Your task to perform on an android device: open app "Google Sheets" (install if not already installed) Image 0: 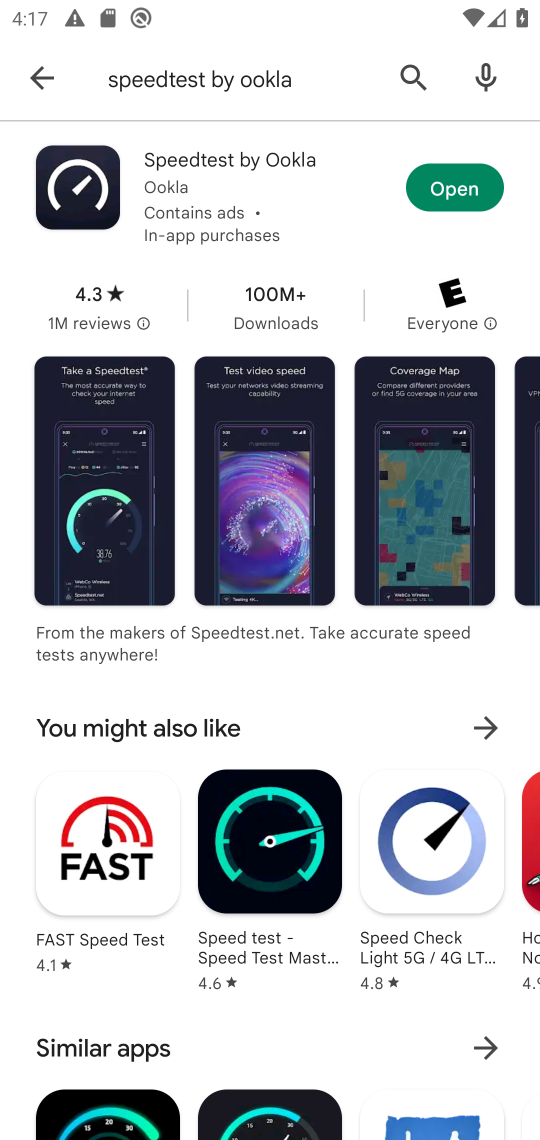
Step 0: drag from (218, 975) to (241, 432)
Your task to perform on an android device: open app "Google Sheets" (install if not already installed) Image 1: 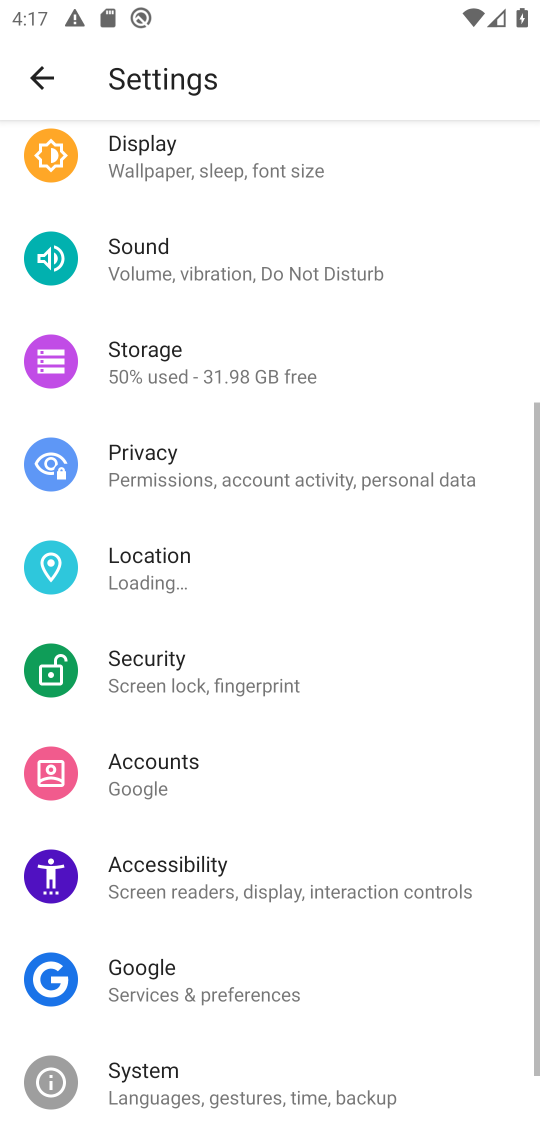
Step 1: press back button
Your task to perform on an android device: open app "Google Sheets" (install if not already installed) Image 2: 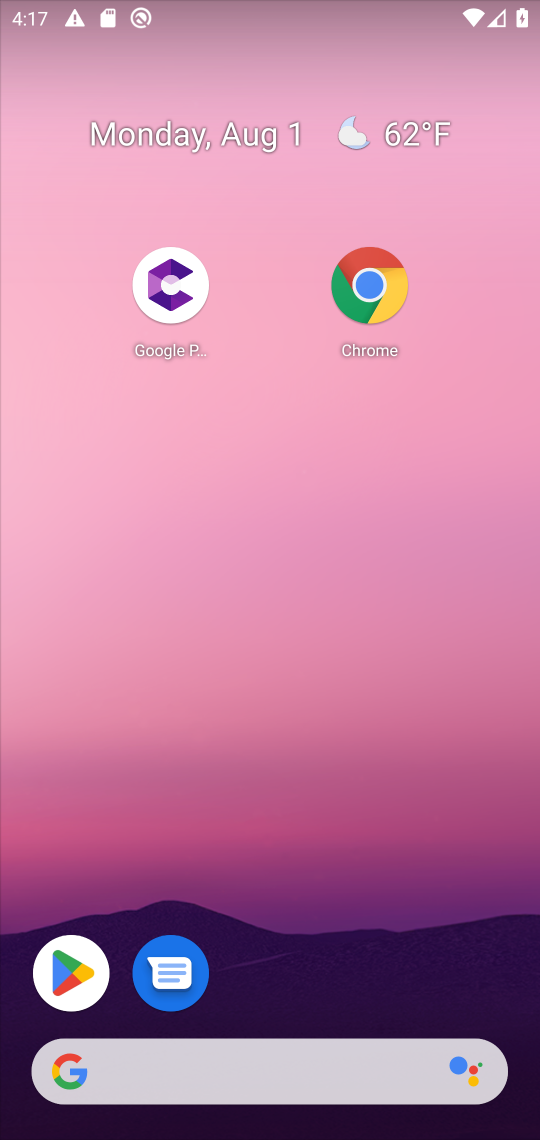
Step 2: drag from (279, 835) to (159, 138)
Your task to perform on an android device: open app "Google Sheets" (install if not already installed) Image 3: 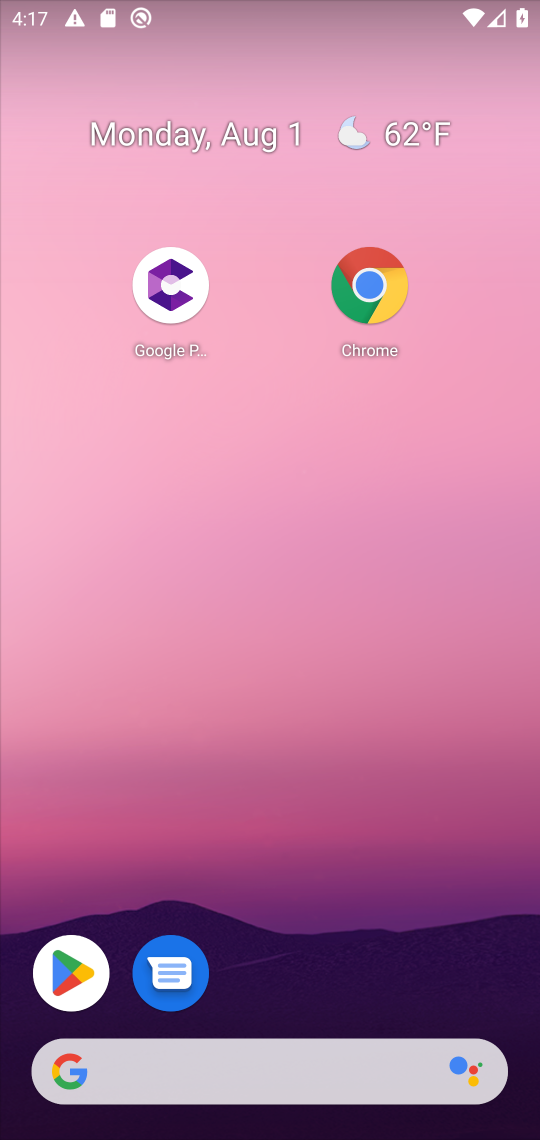
Step 3: drag from (383, 714) to (301, 235)
Your task to perform on an android device: open app "Google Sheets" (install if not already installed) Image 4: 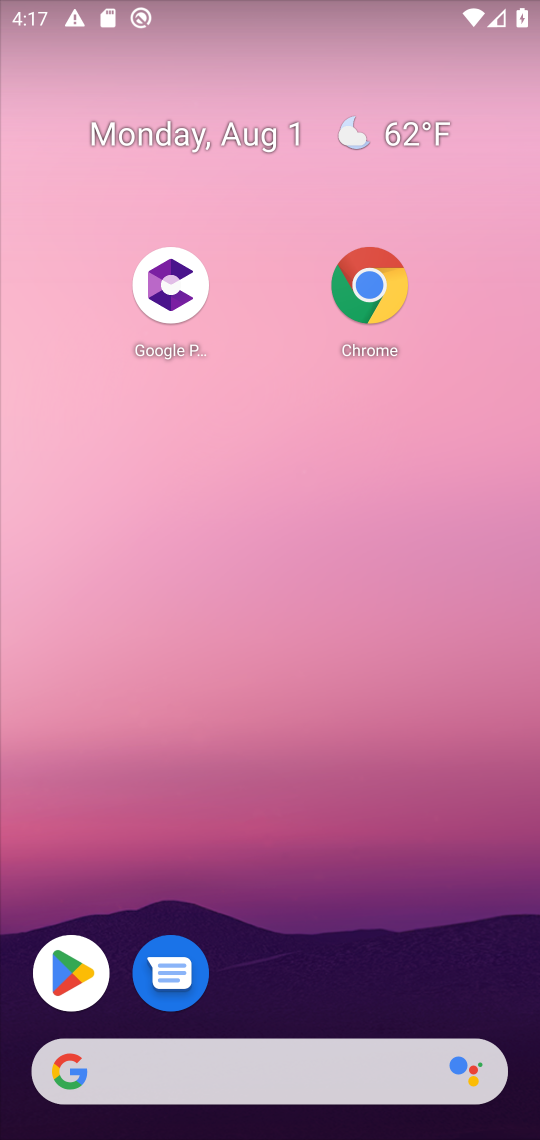
Step 4: click (460, 227)
Your task to perform on an android device: open app "Google Sheets" (install if not already installed) Image 5: 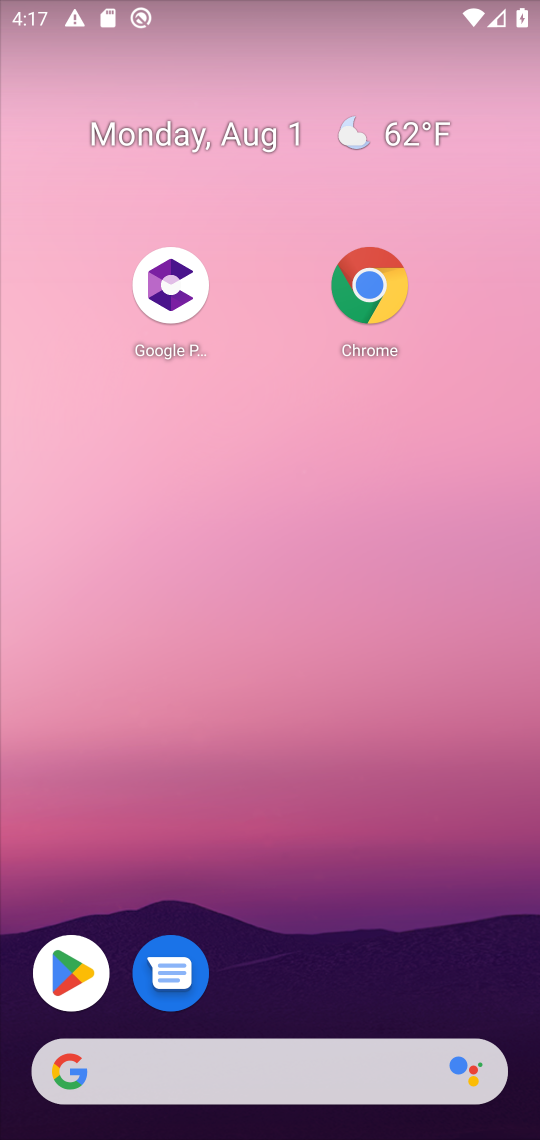
Step 5: drag from (377, 761) to (344, 193)
Your task to perform on an android device: open app "Google Sheets" (install if not already installed) Image 6: 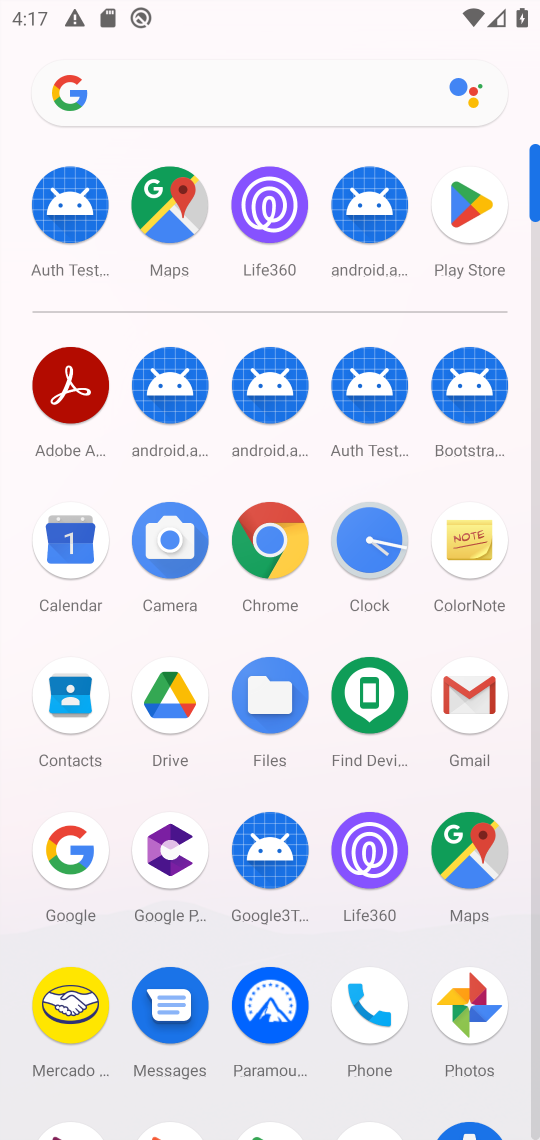
Step 6: click (467, 218)
Your task to perform on an android device: open app "Google Sheets" (install if not already installed) Image 7: 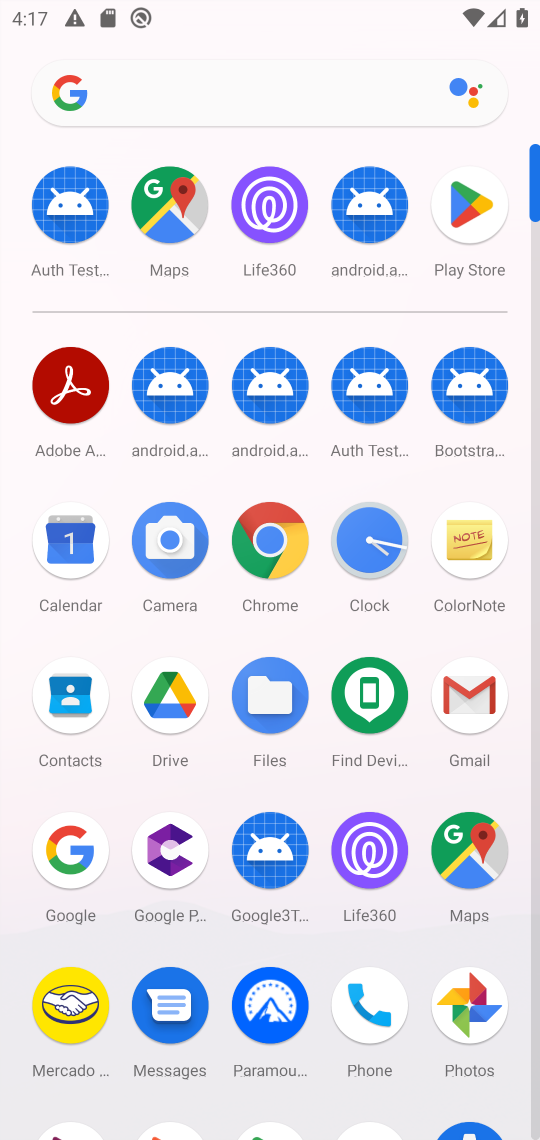
Step 7: click (468, 216)
Your task to perform on an android device: open app "Google Sheets" (install if not already installed) Image 8: 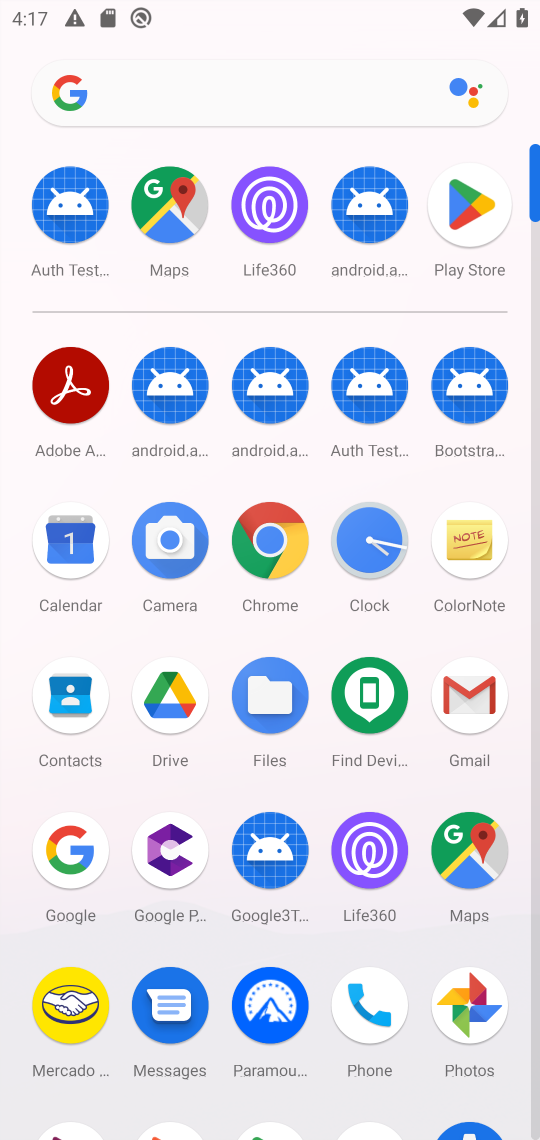
Step 8: click (468, 216)
Your task to perform on an android device: open app "Google Sheets" (install if not already installed) Image 9: 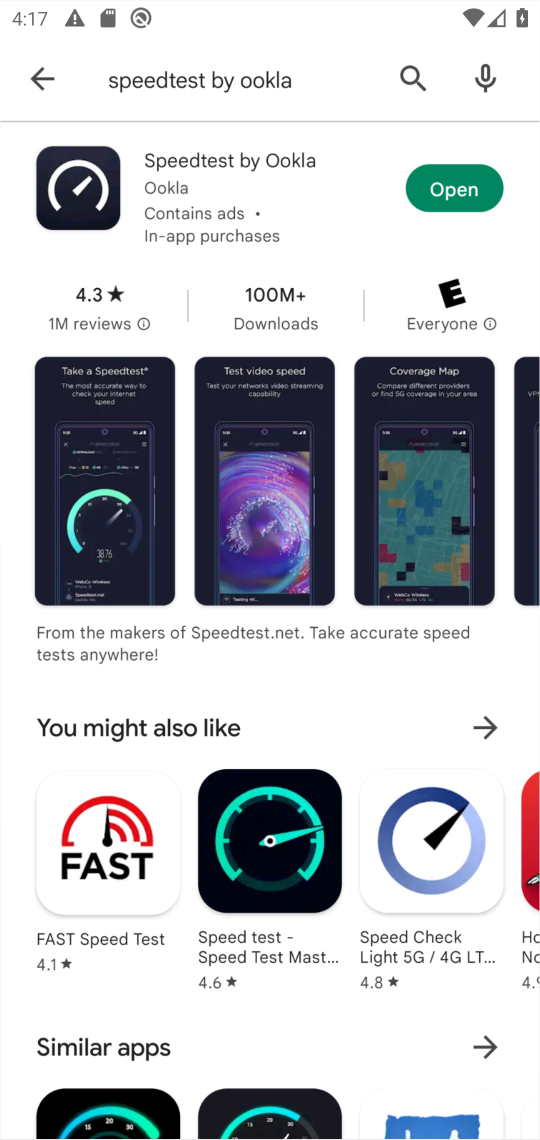
Step 9: click (469, 229)
Your task to perform on an android device: open app "Google Sheets" (install if not already installed) Image 10: 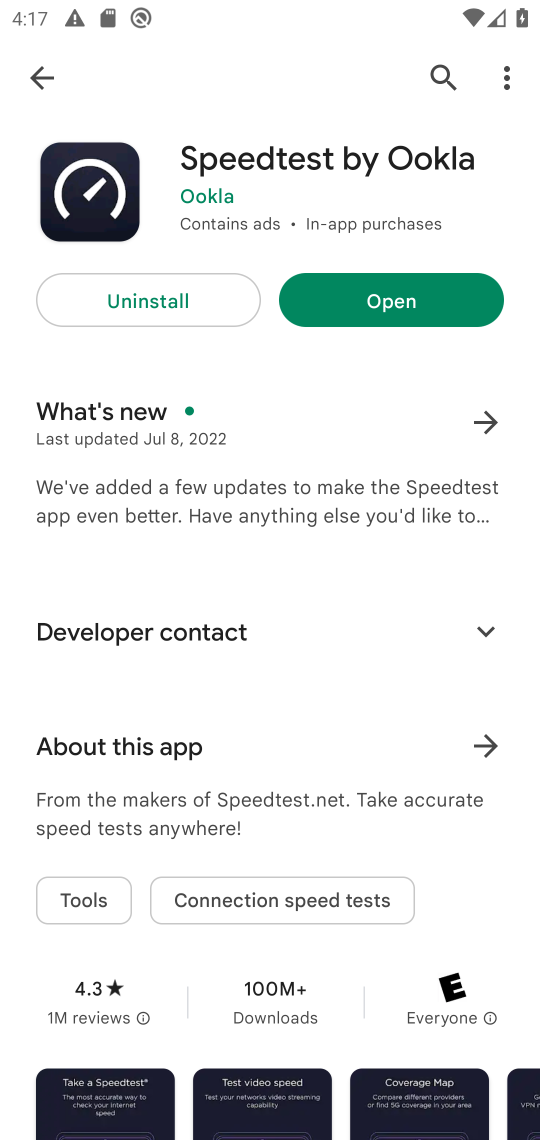
Step 10: click (39, 64)
Your task to perform on an android device: open app "Google Sheets" (install if not already installed) Image 11: 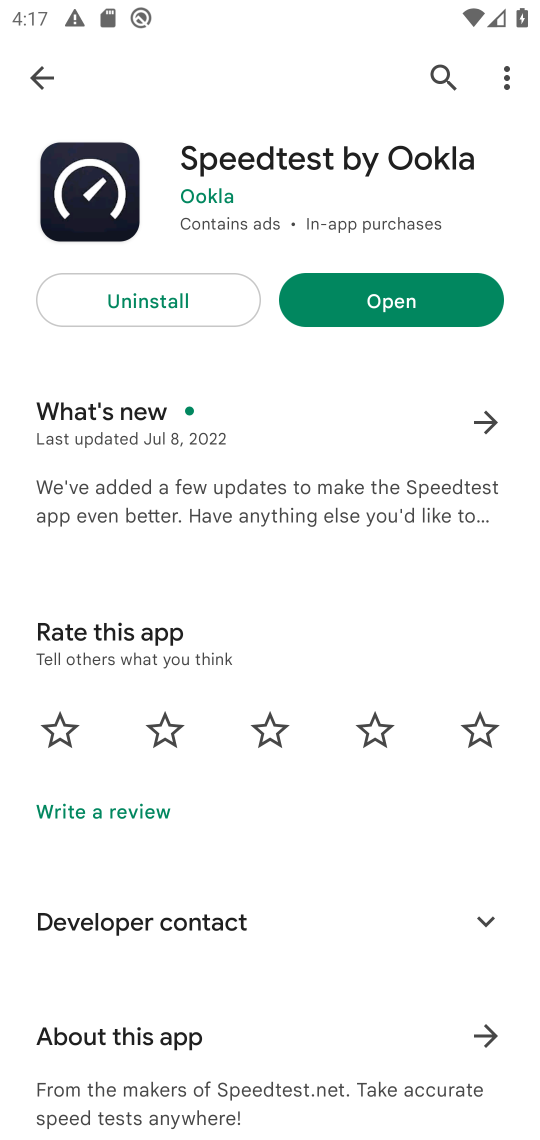
Step 11: click (37, 76)
Your task to perform on an android device: open app "Google Sheets" (install if not already installed) Image 12: 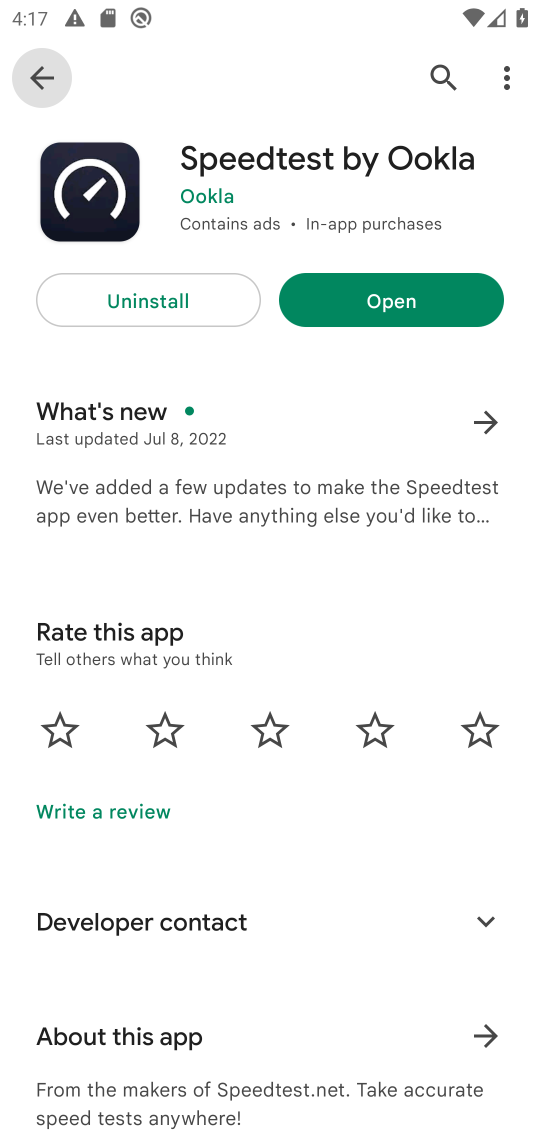
Step 12: click (38, 76)
Your task to perform on an android device: open app "Google Sheets" (install if not already installed) Image 13: 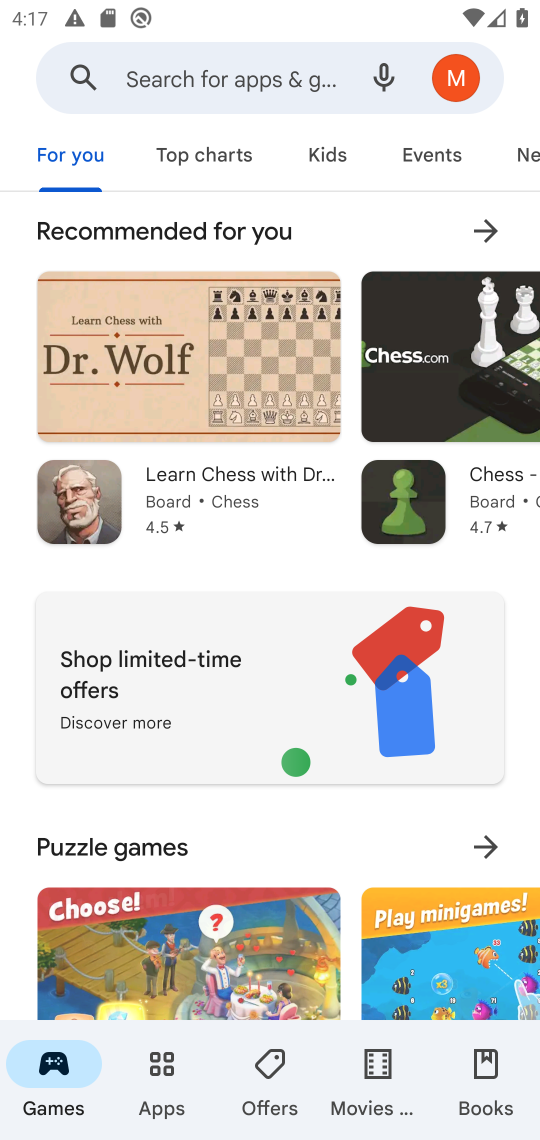
Step 13: click (171, 36)
Your task to perform on an android device: open app "Google Sheets" (install if not already installed) Image 14: 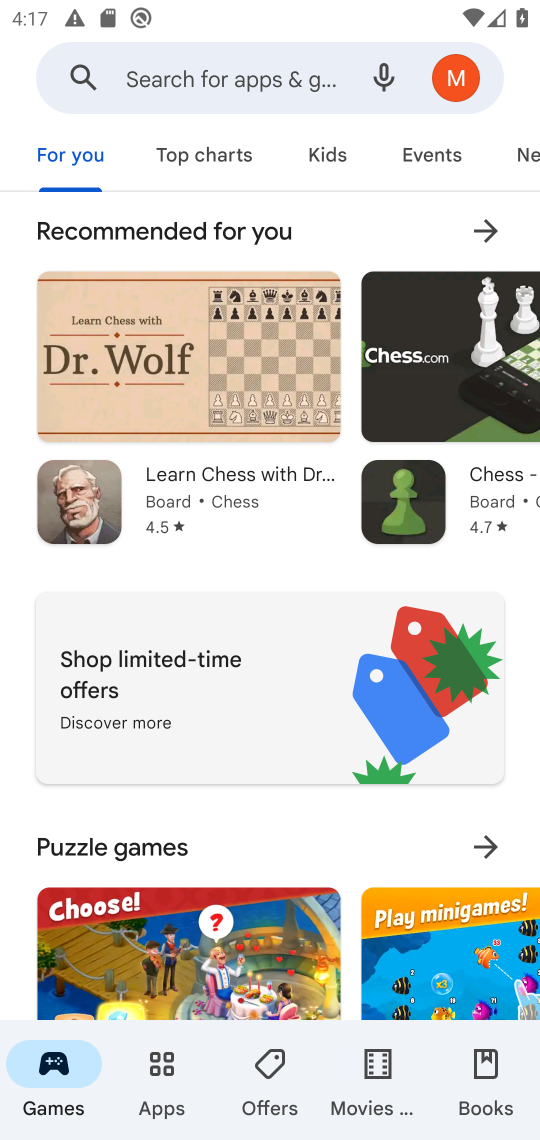
Step 14: click (170, 74)
Your task to perform on an android device: open app "Google Sheets" (install if not already installed) Image 15: 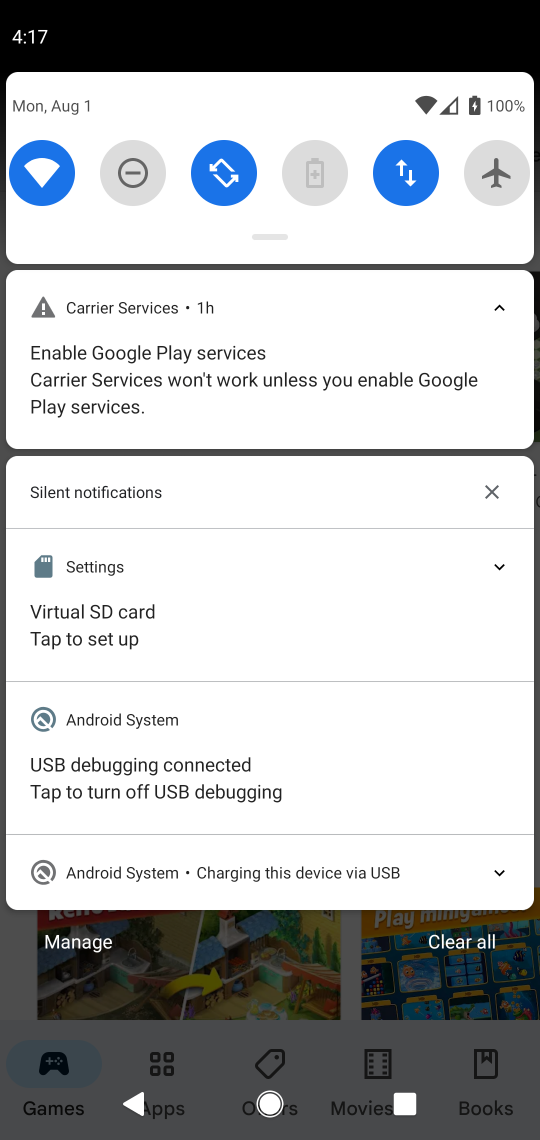
Step 15: click (186, 986)
Your task to perform on an android device: open app "Google Sheets" (install if not already installed) Image 16: 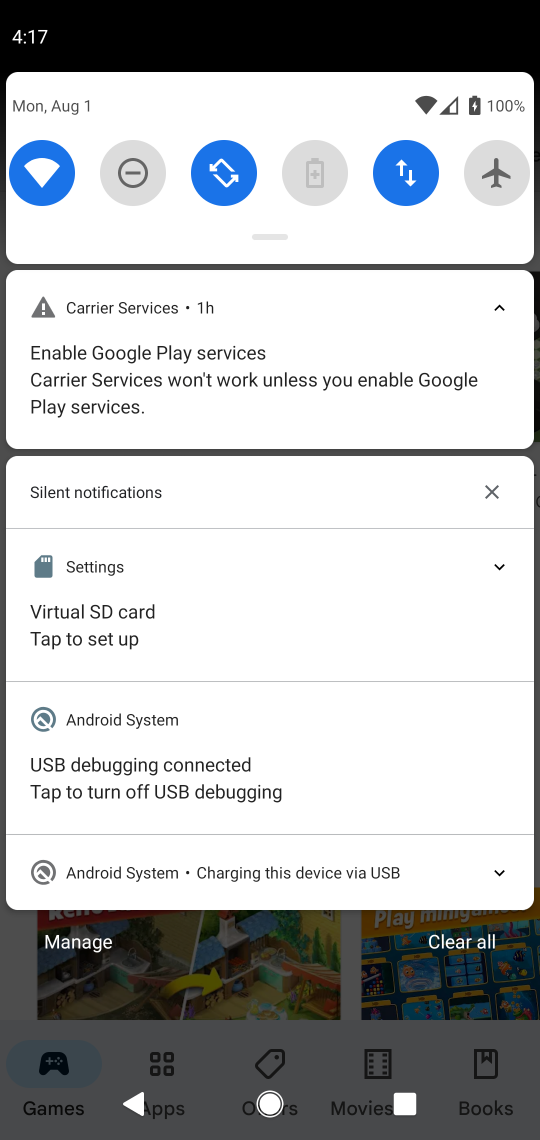
Step 16: click (186, 986)
Your task to perform on an android device: open app "Google Sheets" (install if not already installed) Image 17: 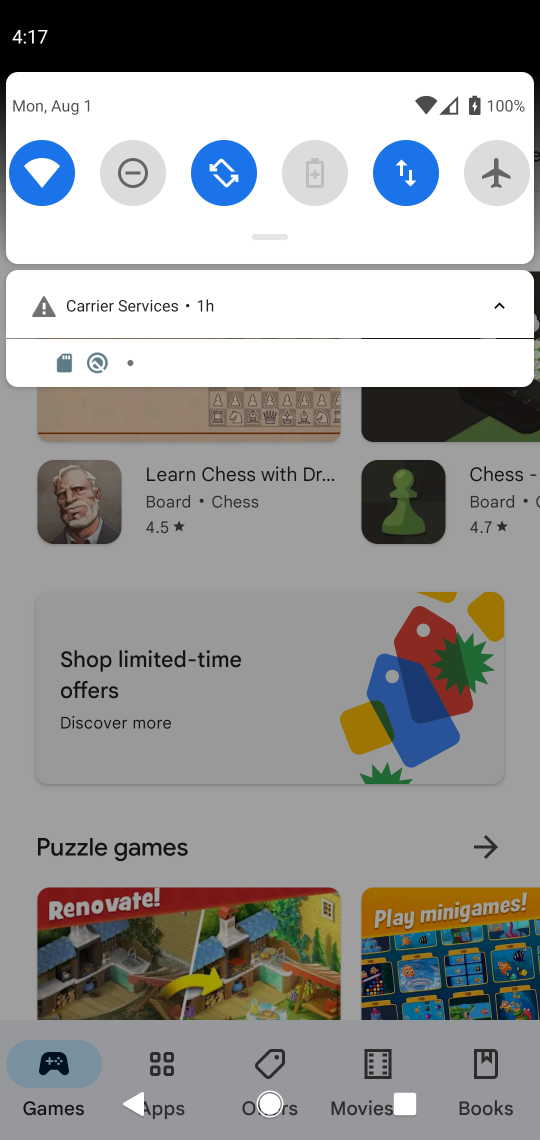
Step 17: click (186, 986)
Your task to perform on an android device: open app "Google Sheets" (install if not already installed) Image 18: 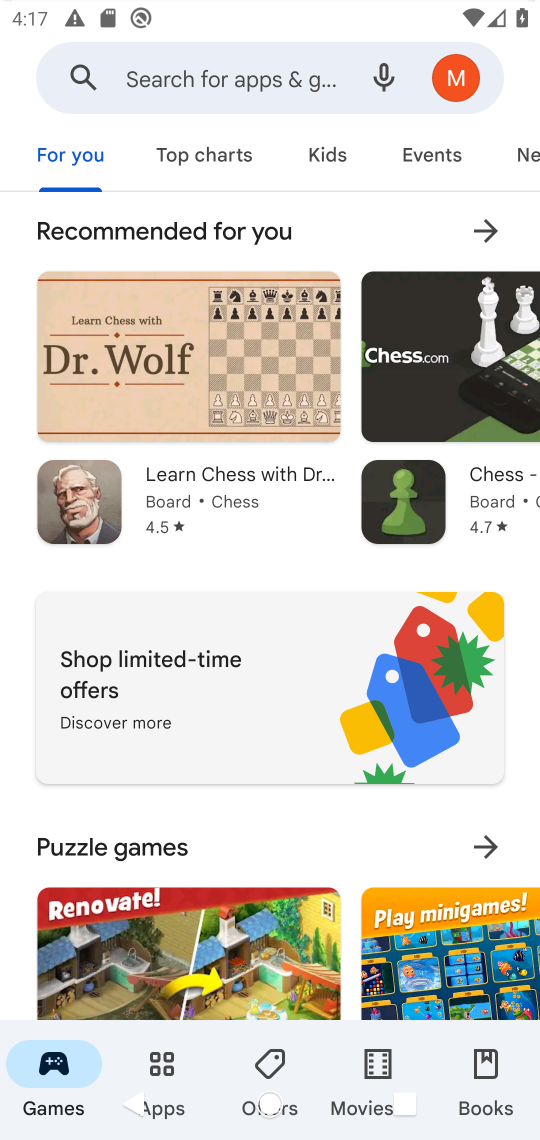
Step 18: click (186, 986)
Your task to perform on an android device: open app "Google Sheets" (install if not already installed) Image 19: 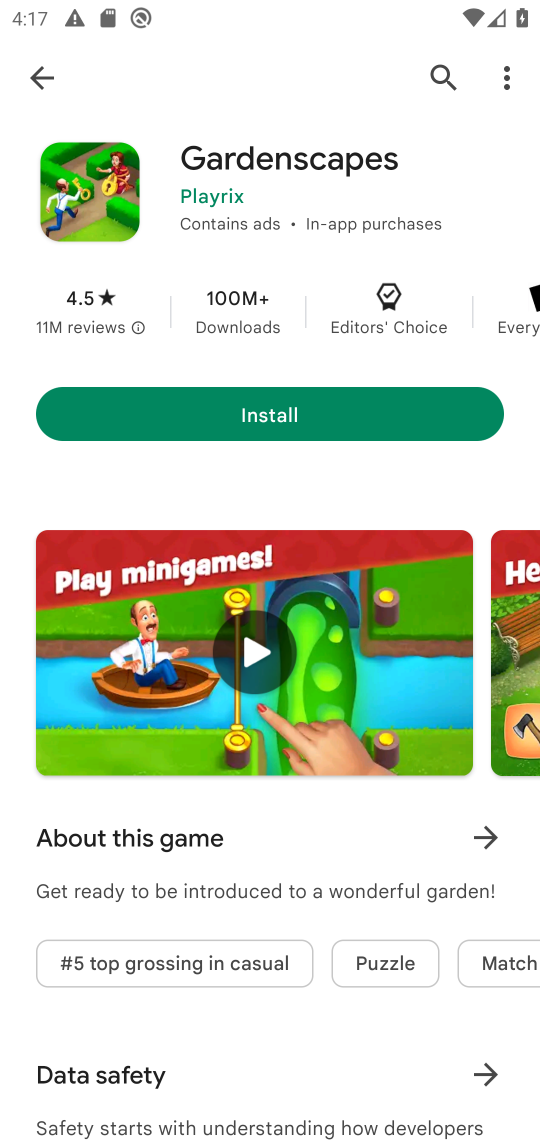
Step 19: click (139, 70)
Your task to perform on an android device: open app "Google Sheets" (install if not already installed) Image 20: 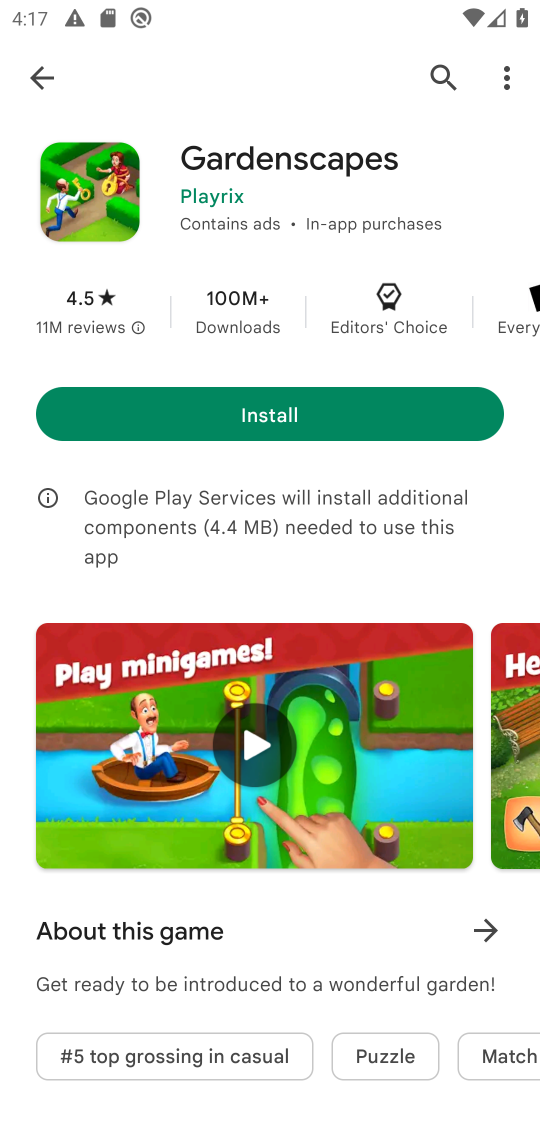
Step 20: click (36, 79)
Your task to perform on an android device: open app "Google Sheets" (install if not already installed) Image 21: 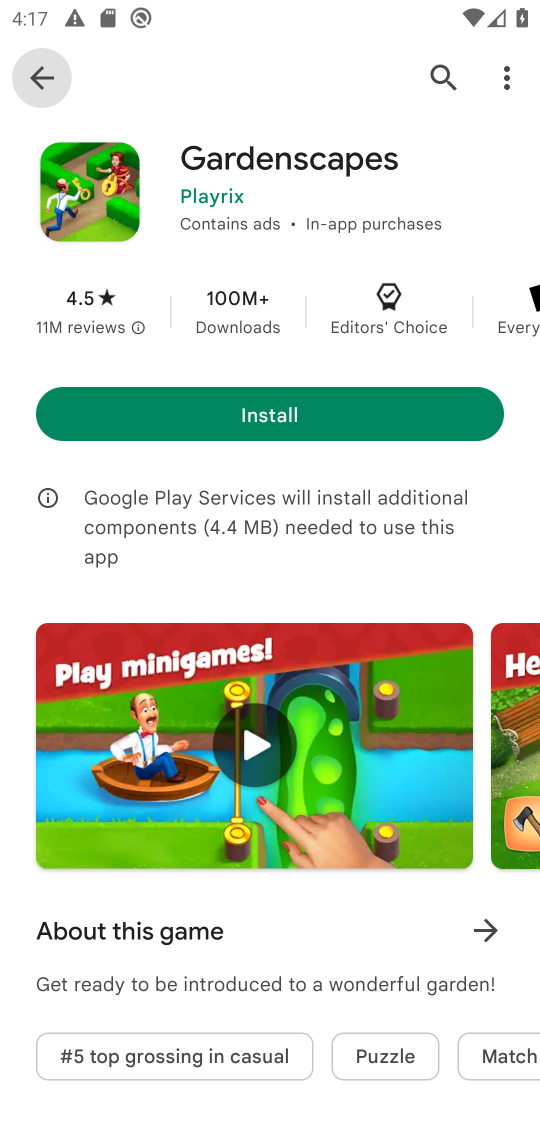
Step 21: click (36, 79)
Your task to perform on an android device: open app "Google Sheets" (install if not already installed) Image 22: 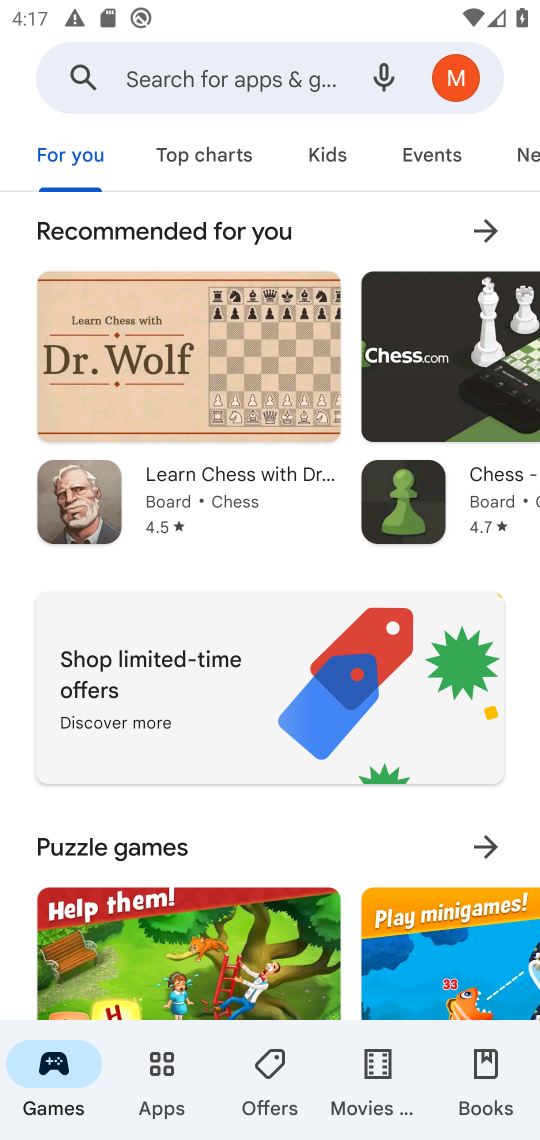
Step 22: click (151, 66)
Your task to perform on an android device: open app "Google Sheets" (install if not already installed) Image 23: 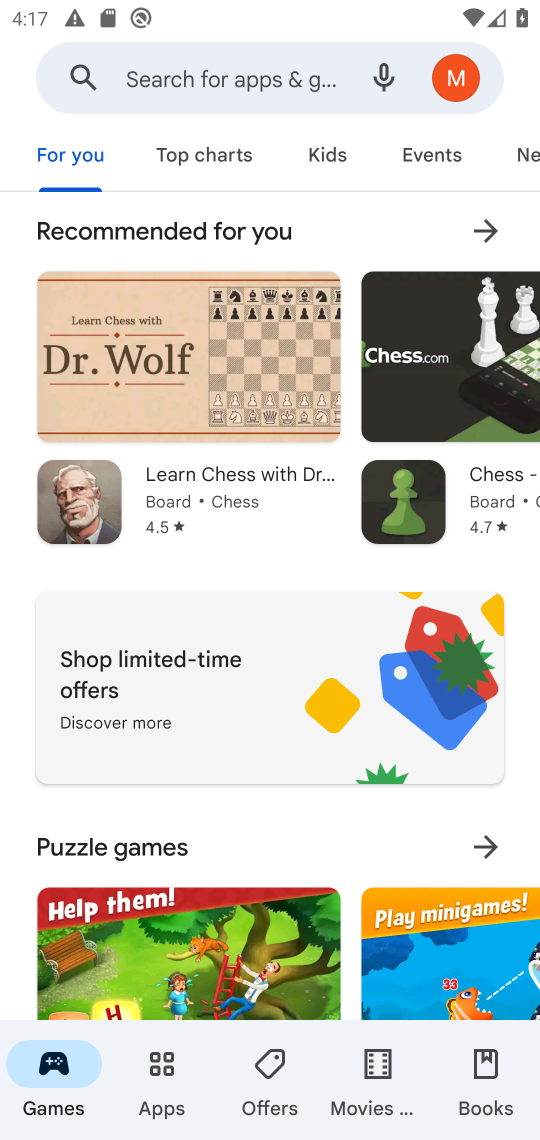
Step 23: click (153, 57)
Your task to perform on an android device: open app "Google Sheets" (install if not already installed) Image 24: 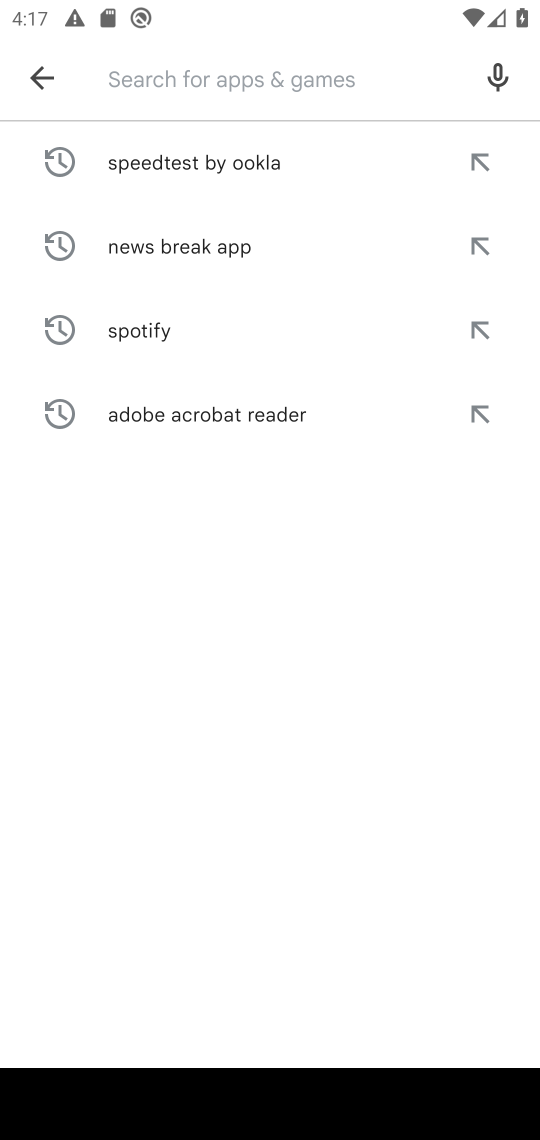
Step 24: type "google sheets"
Your task to perform on an android device: open app "Google Sheets" (install if not already installed) Image 25: 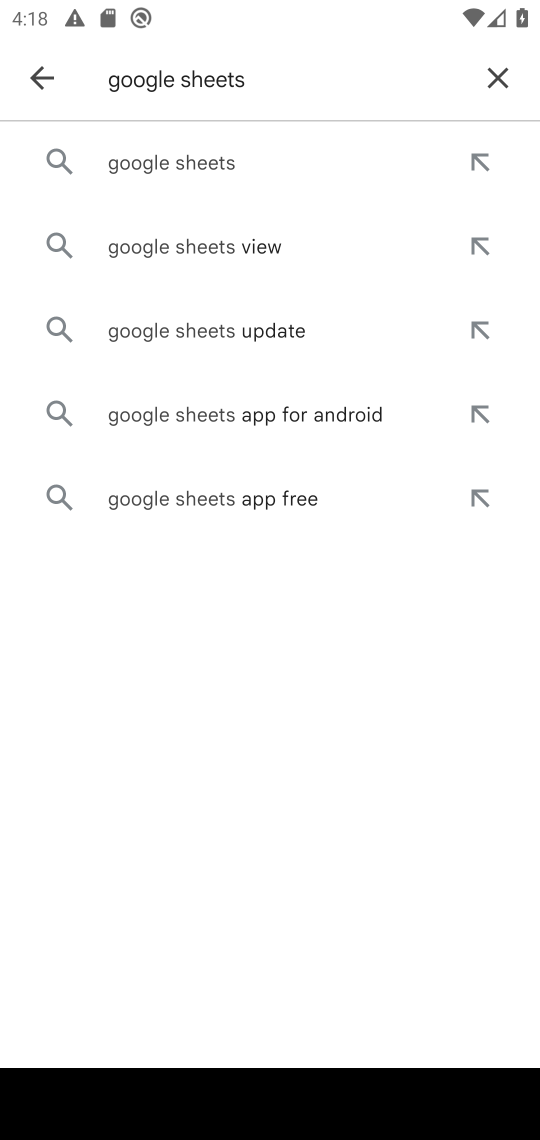
Step 25: click (174, 165)
Your task to perform on an android device: open app "Google Sheets" (install if not already installed) Image 26: 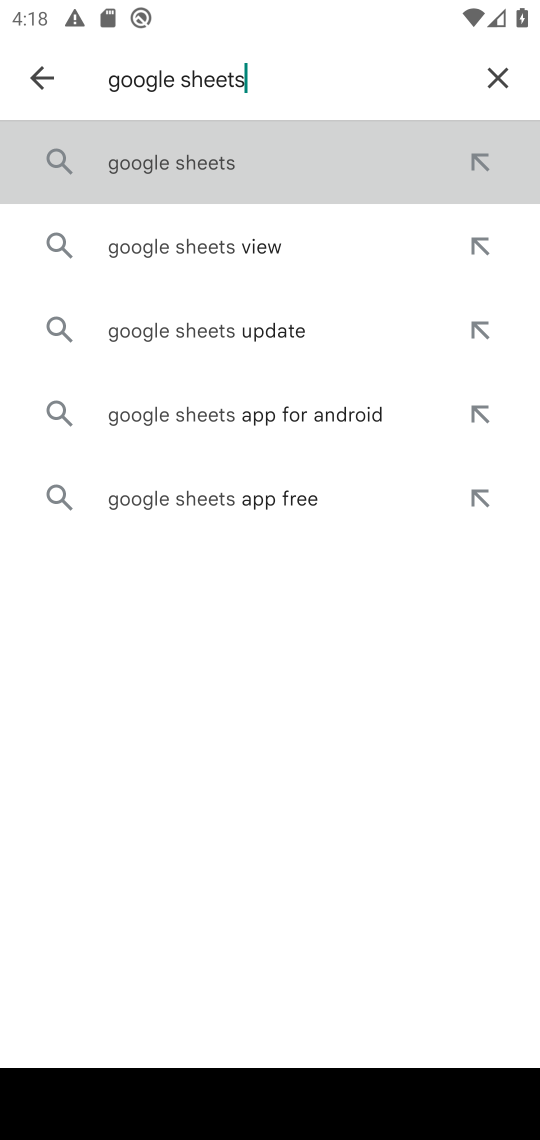
Step 26: click (171, 165)
Your task to perform on an android device: open app "Google Sheets" (install if not already installed) Image 27: 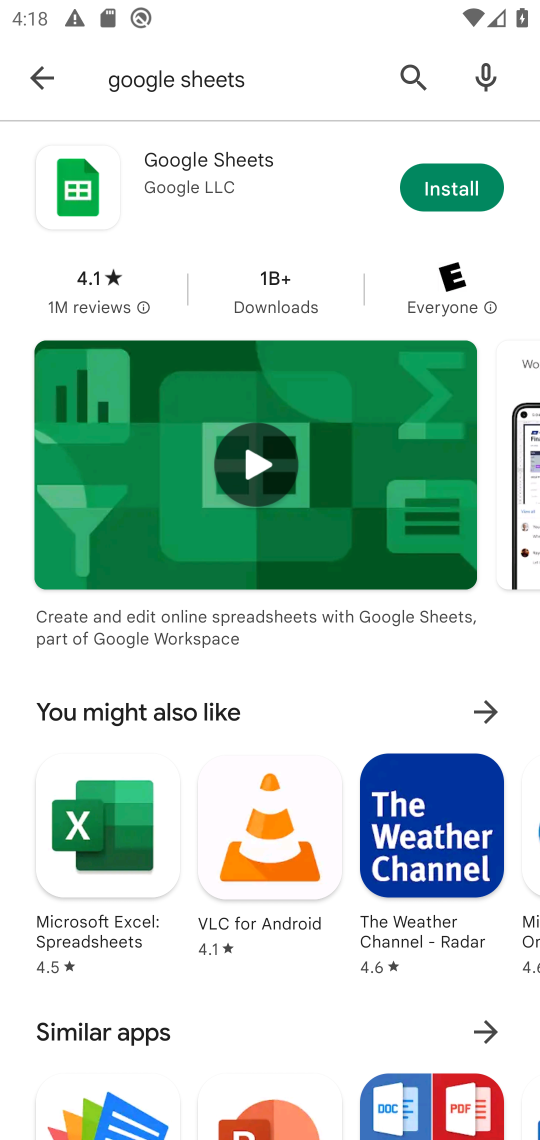
Step 27: click (431, 183)
Your task to perform on an android device: open app "Google Sheets" (install if not already installed) Image 28: 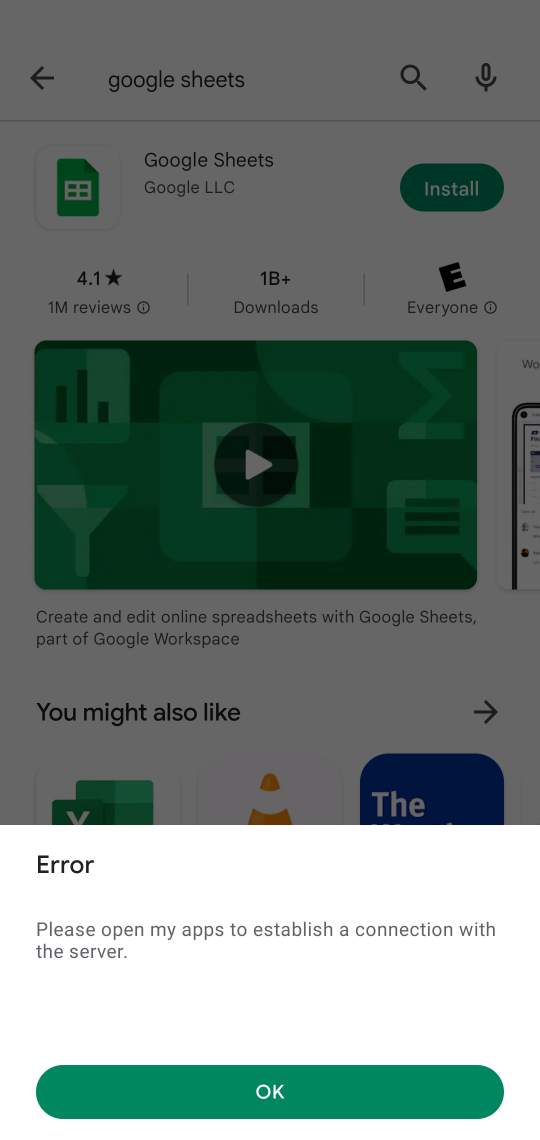
Step 28: click (313, 1096)
Your task to perform on an android device: open app "Google Sheets" (install if not already installed) Image 29: 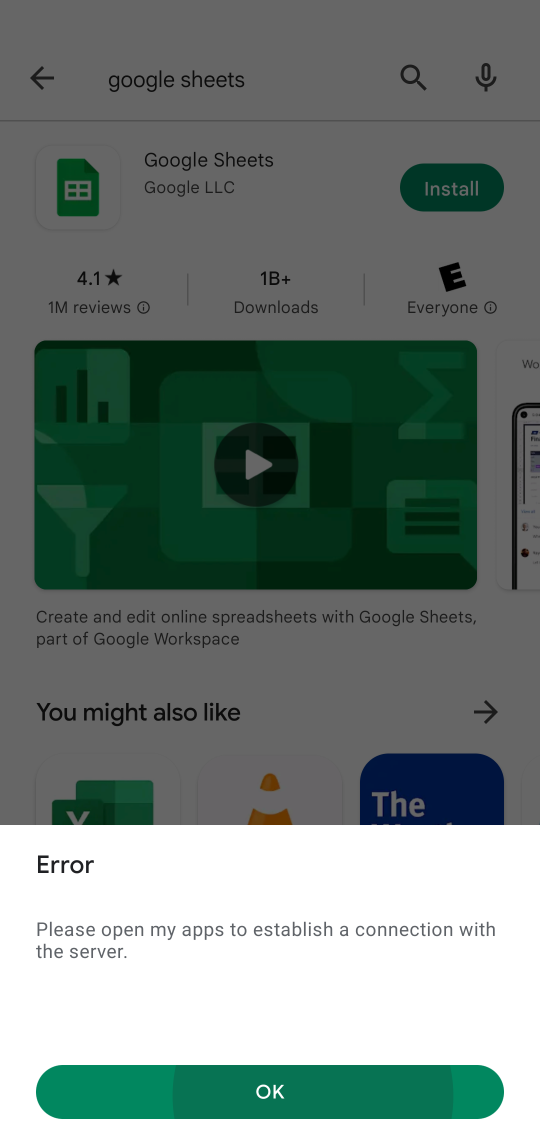
Step 29: click (313, 1089)
Your task to perform on an android device: open app "Google Sheets" (install if not already installed) Image 30: 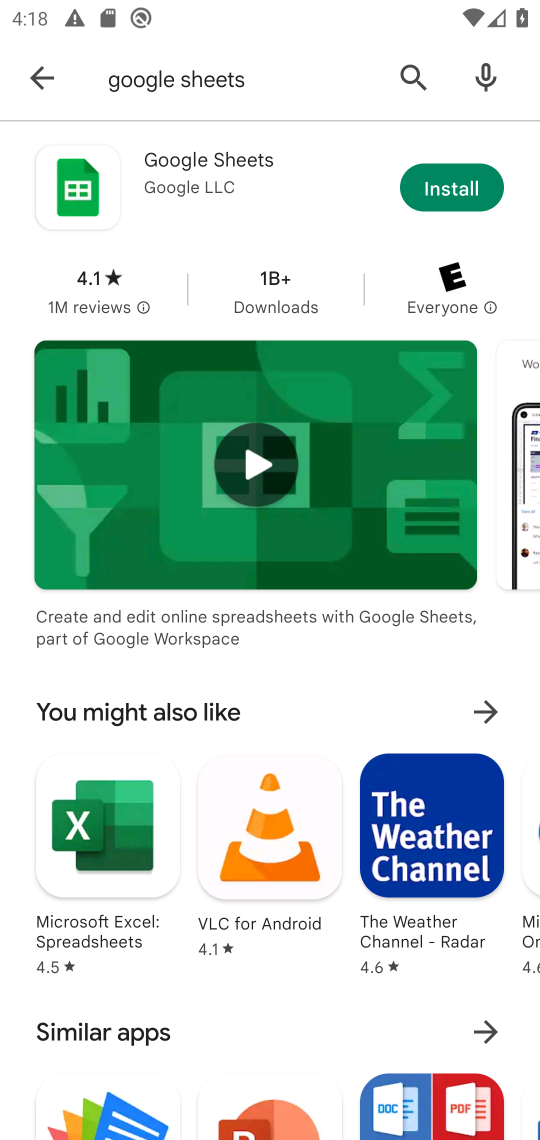
Step 30: click (453, 188)
Your task to perform on an android device: open app "Google Sheets" (install if not already installed) Image 31: 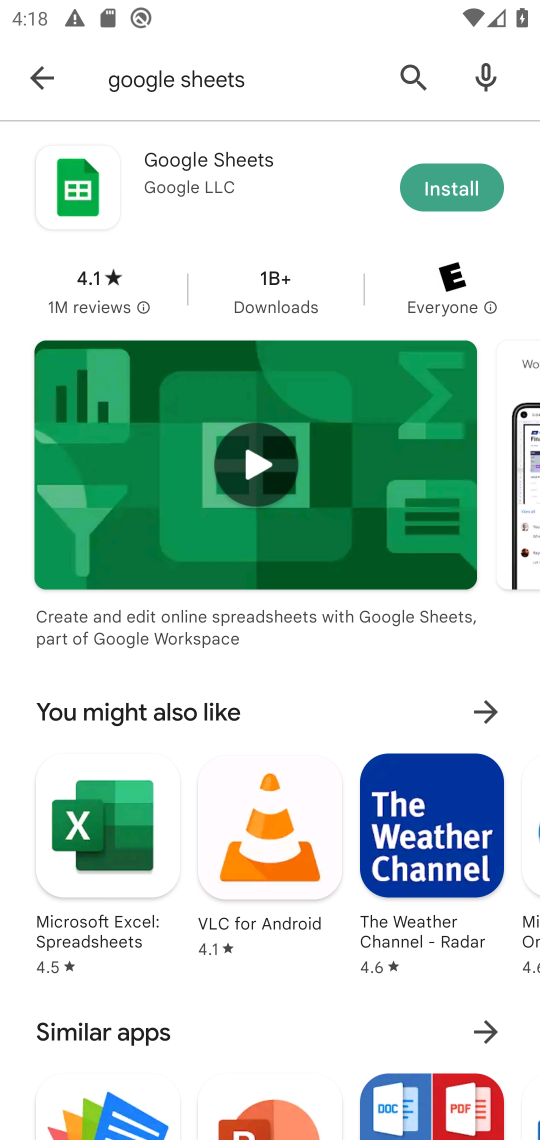
Step 31: click (454, 188)
Your task to perform on an android device: open app "Google Sheets" (install if not already installed) Image 32: 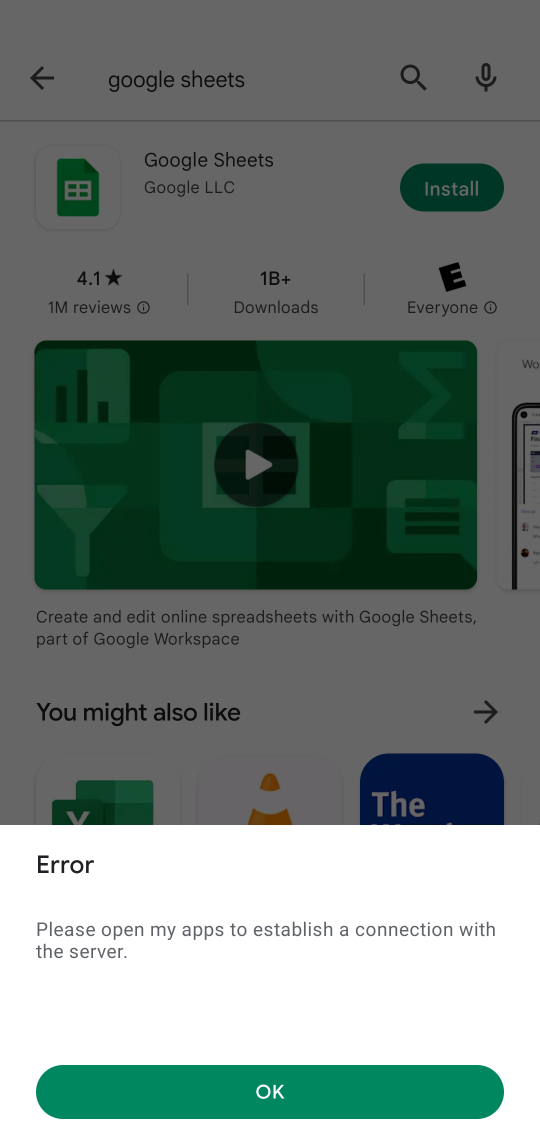
Step 32: click (289, 1092)
Your task to perform on an android device: open app "Google Sheets" (install if not already installed) Image 33: 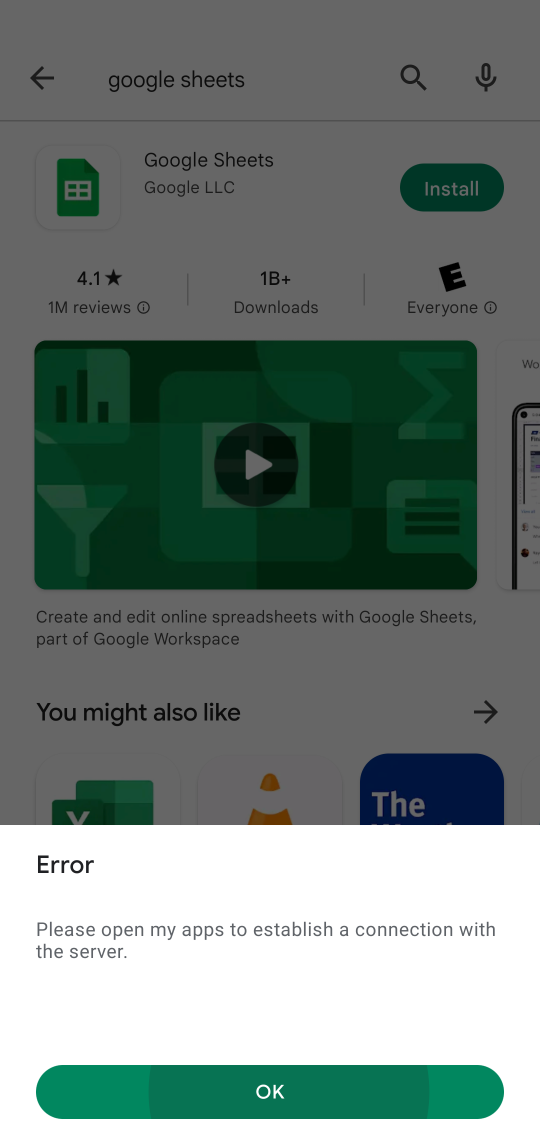
Step 33: click (306, 1101)
Your task to perform on an android device: open app "Google Sheets" (install if not already installed) Image 34: 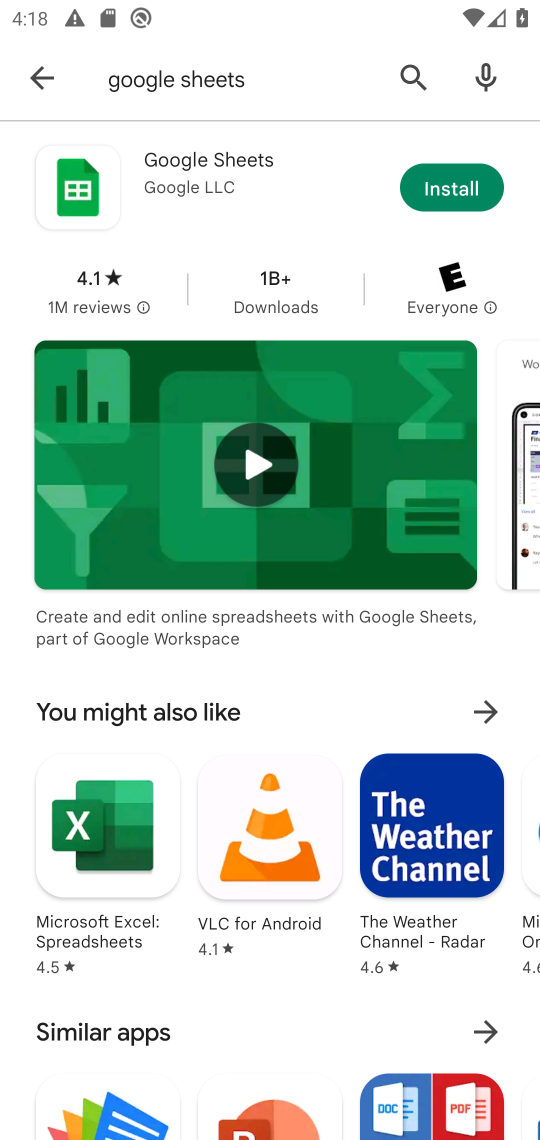
Step 34: click (297, 1102)
Your task to perform on an android device: open app "Google Sheets" (install if not already installed) Image 35: 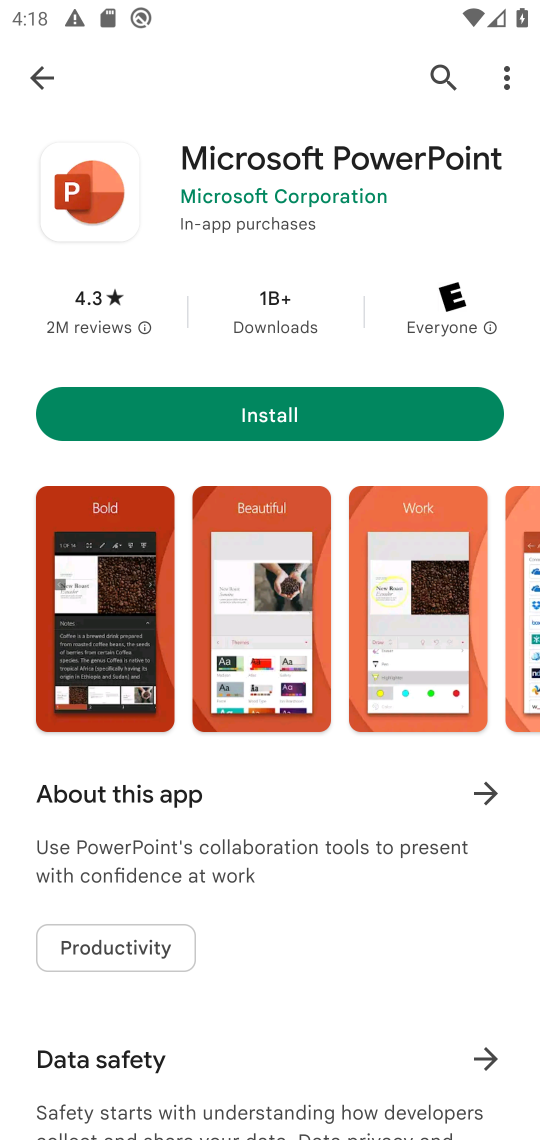
Step 35: click (45, 76)
Your task to perform on an android device: open app "Google Sheets" (install if not already installed) Image 36: 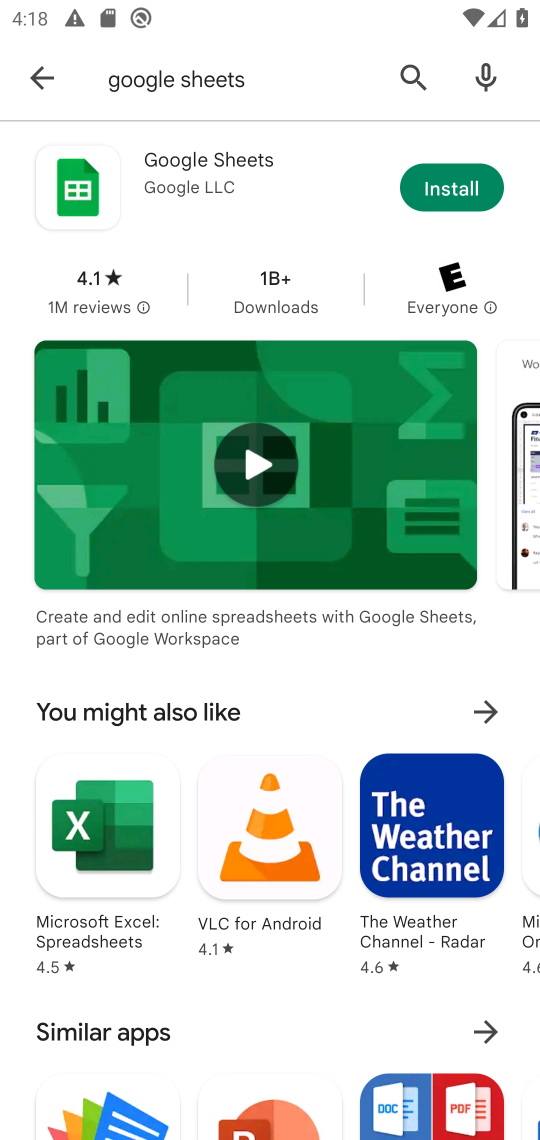
Step 36: click (418, 178)
Your task to perform on an android device: open app "Google Sheets" (install if not already installed) Image 37: 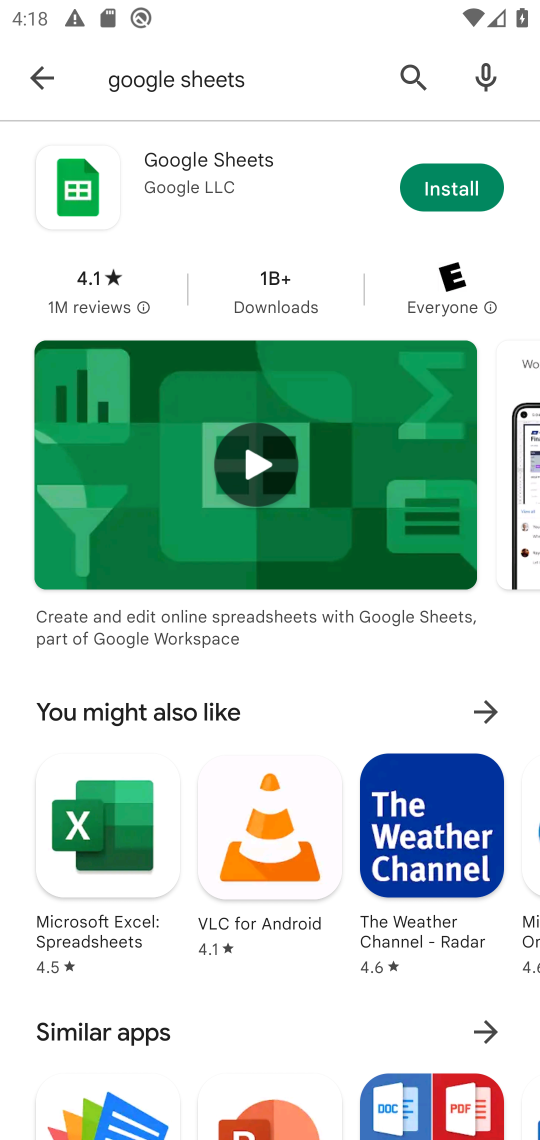
Step 37: click (418, 185)
Your task to perform on an android device: open app "Google Sheets" (install if not already installed) Image 38: 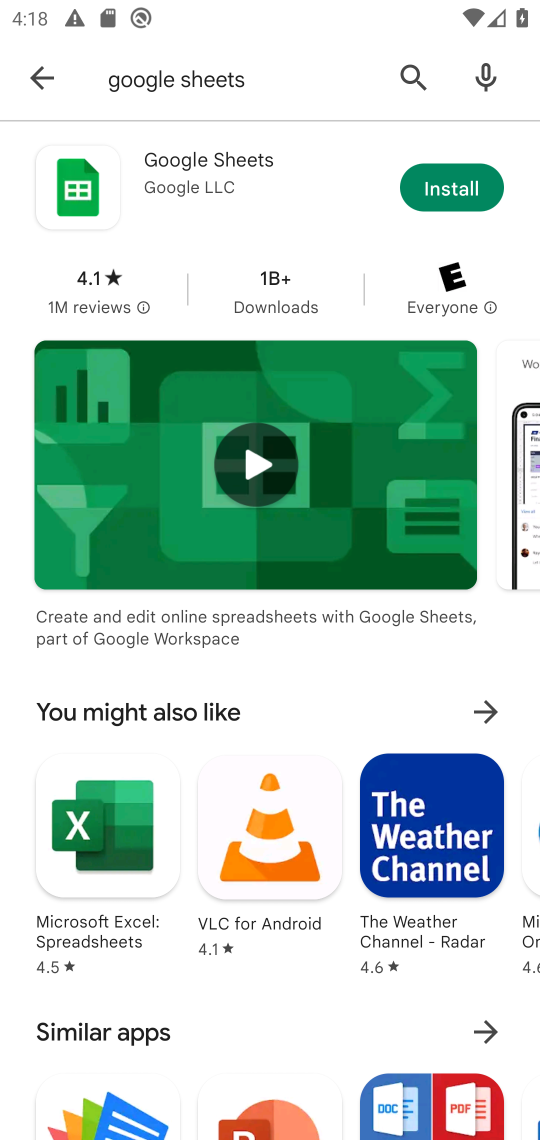
Step 38: task complete